Your task to perform on an android device: turn off data saver in the chrome app Image 0: 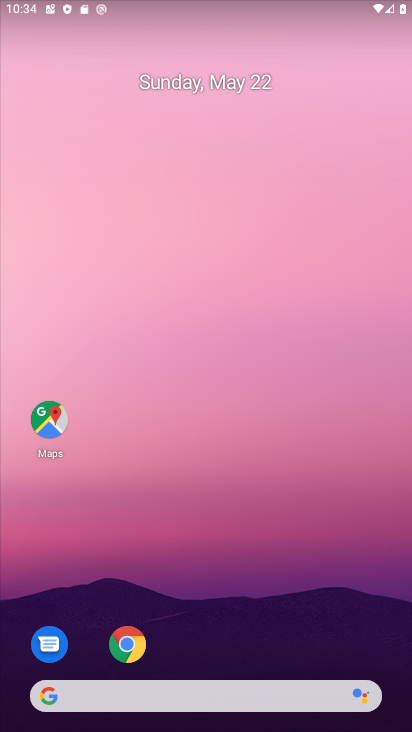
Step 0: click (128, 655)
Your task to perform on an android device: turn off data saver in the chrome app Image 1: 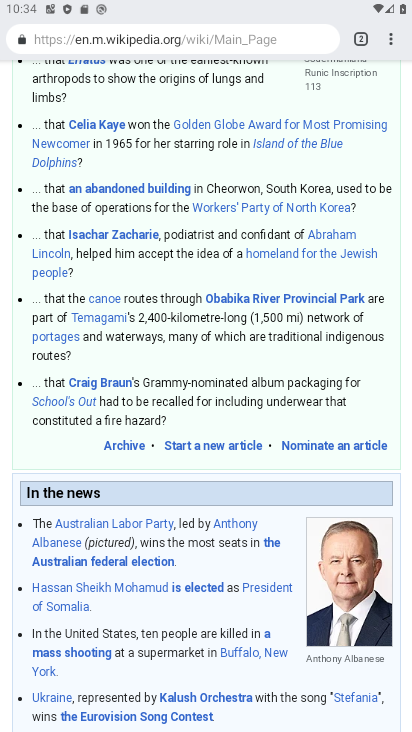
Step 1: click (391, 33)
Your task to perform on an android device: turn off data saver in the chrome app Image 2: 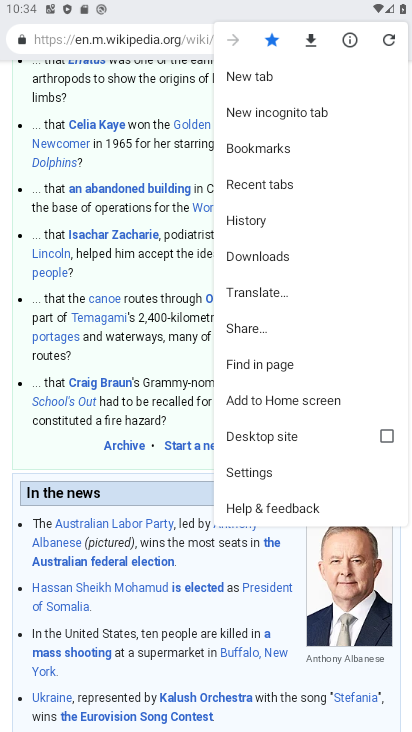
Step 2: click (249, 469)
Your task to perform on an android device: turn off data saver in the chrome app Image 3: 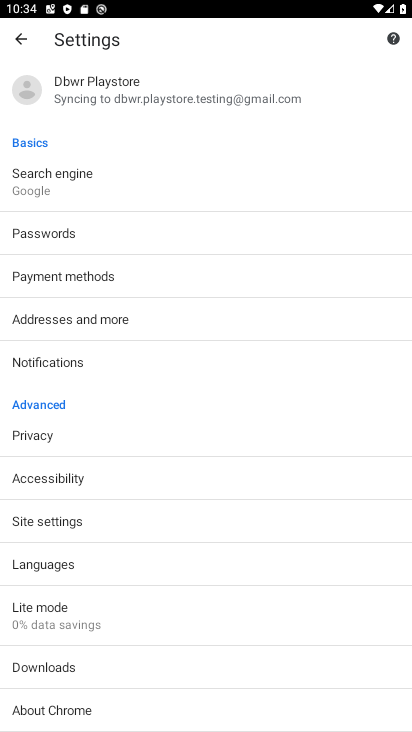
Step 3: click (57, 612)
Your task to perform on an android device: turn off data saver in the chrome app Image 4: 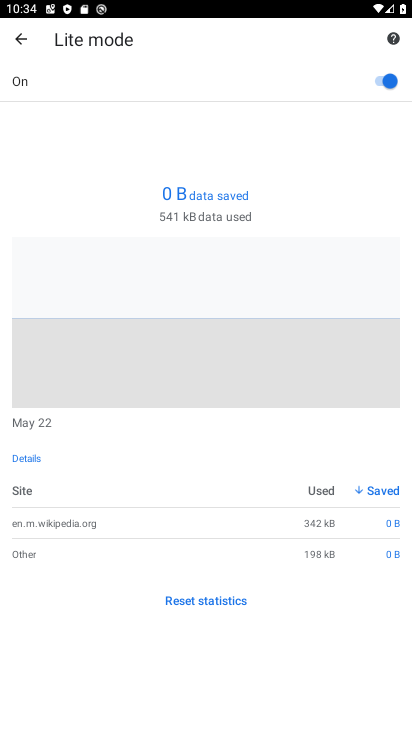
Step 4: click (379, 82)
Your task to perform on an android device: turn off data saver in the chrome app Image 5: 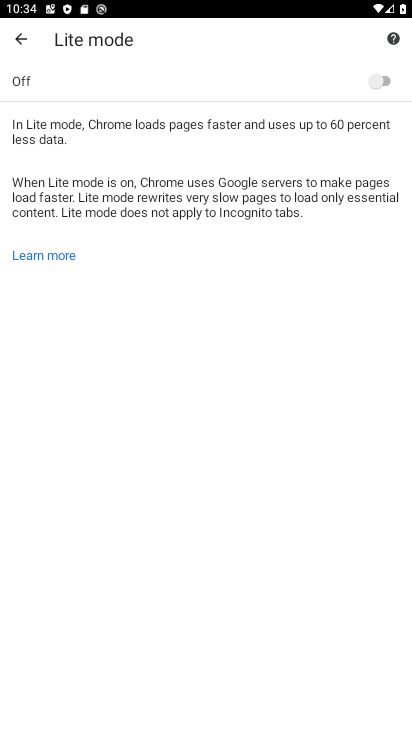
Step 5: task complete